Your task to perform on an android device: add a contact Image 0: 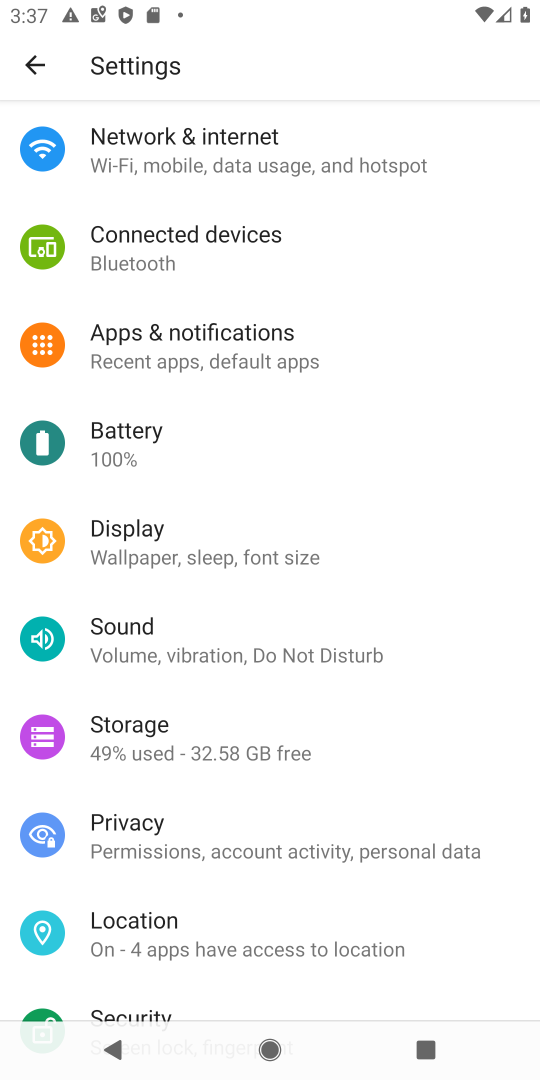
Step 0: press back button
Your task to perform on an android device: add a contact Image 1: 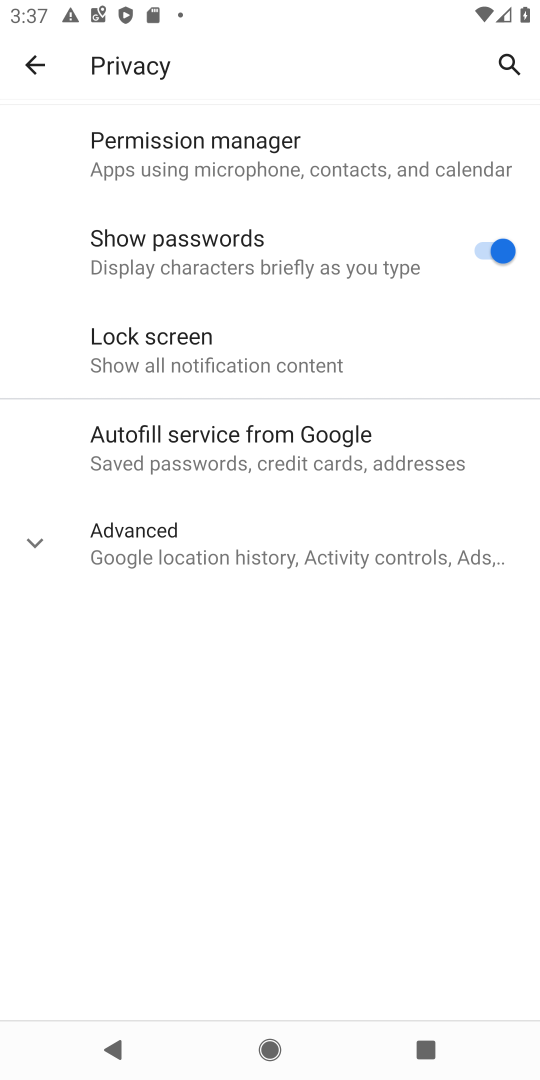
Step 1: press back button
Your task to perform on an android device: add a contact Image 2: 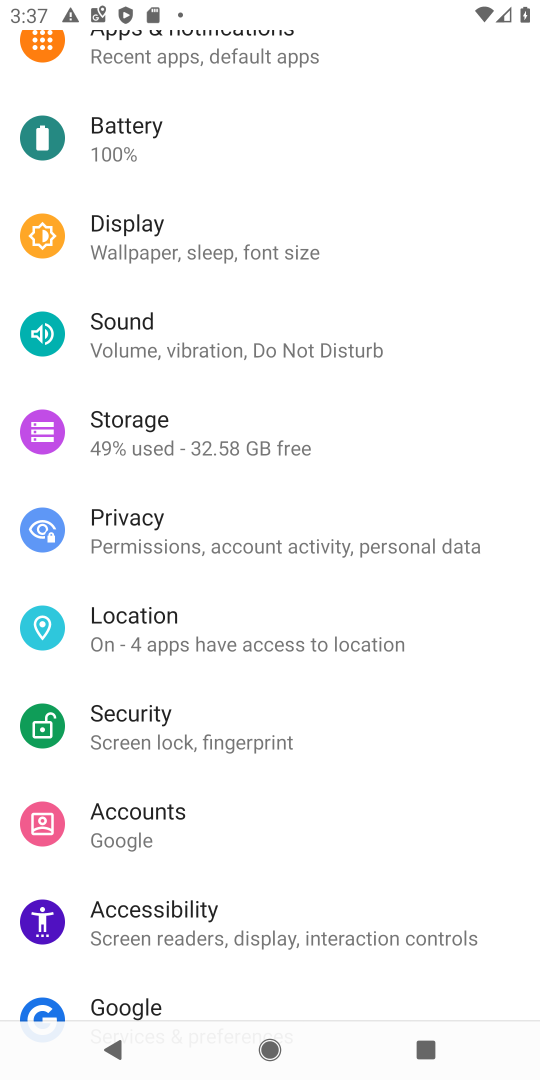
Step 2: press back button
Your task to perform on an android device: add a contact Image 3: 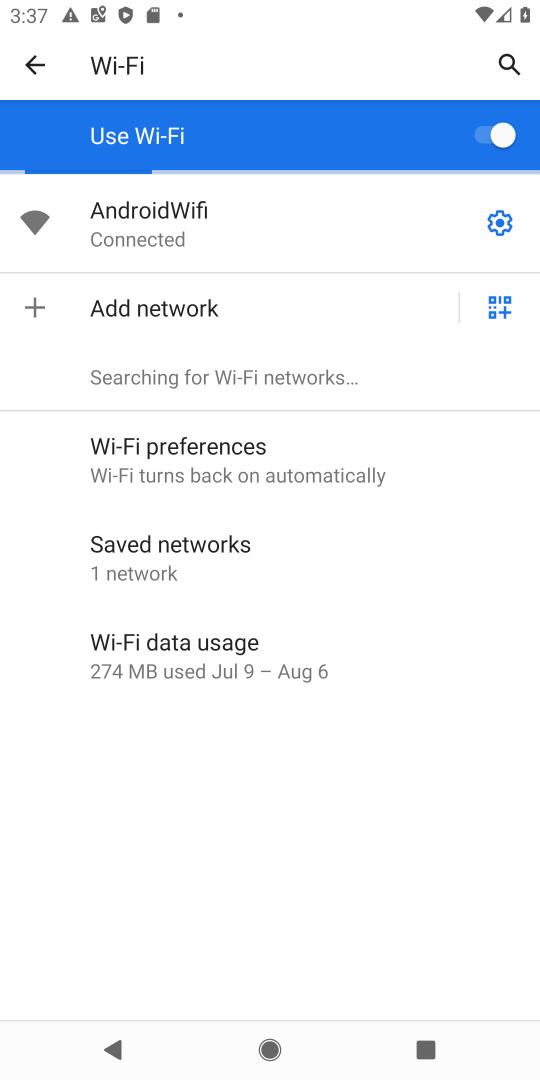
Step 3: press back button
Your task to perform on an android device: add a contact Image 4: 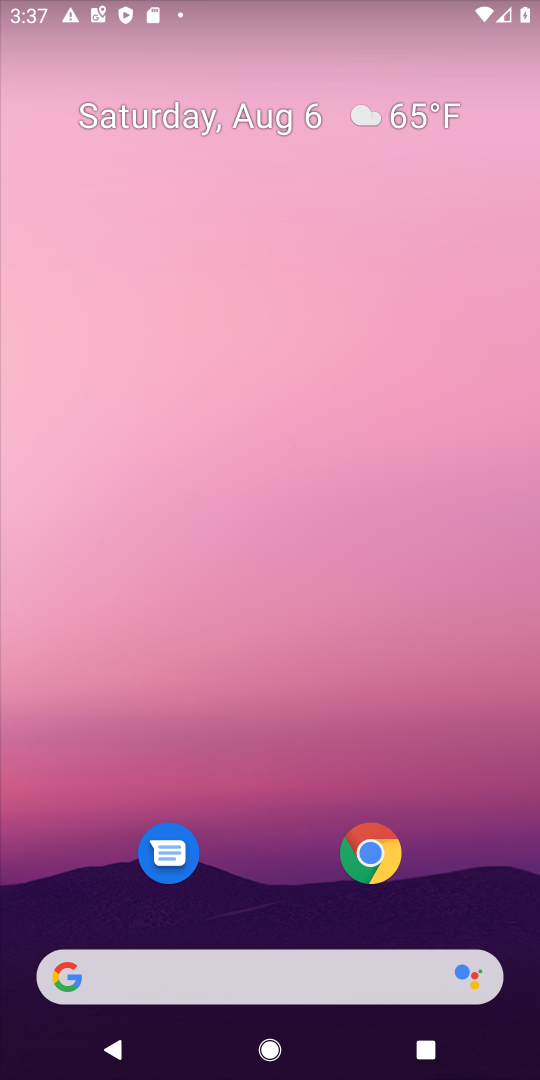
Step 4: drag from (247, 764) to (334, 106)
Your task to perform on an android device: add a contact Image 5: 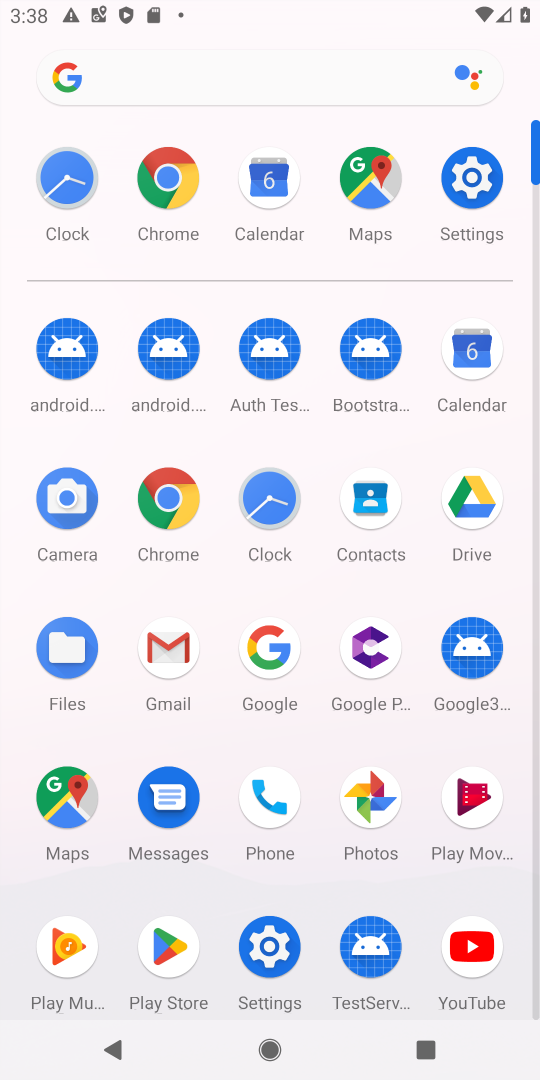
Step 5: click (373, 515)
Your task to perform on an android device: add a contact Image 6: 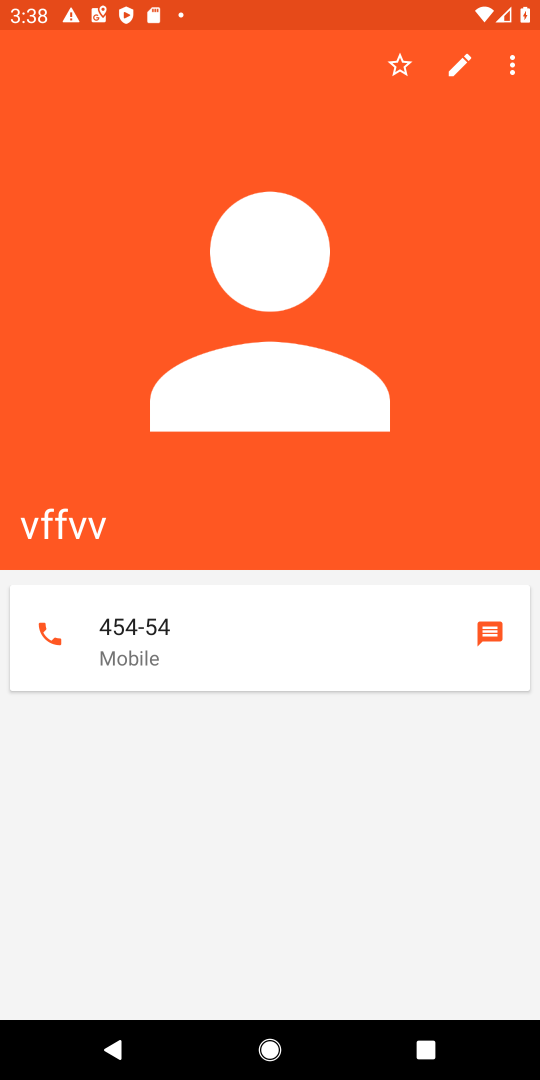
Step 6: press back button
Your task to perform on an android device: add a contact Image 7: 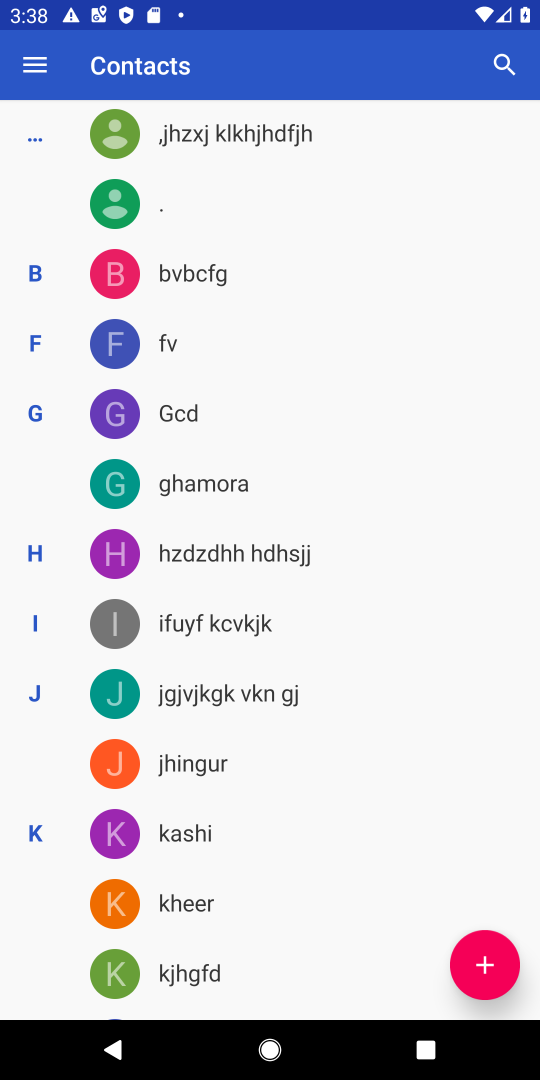
Step 7: click (476, 951)
Your task to perform on an android device: add a contact Image 8: 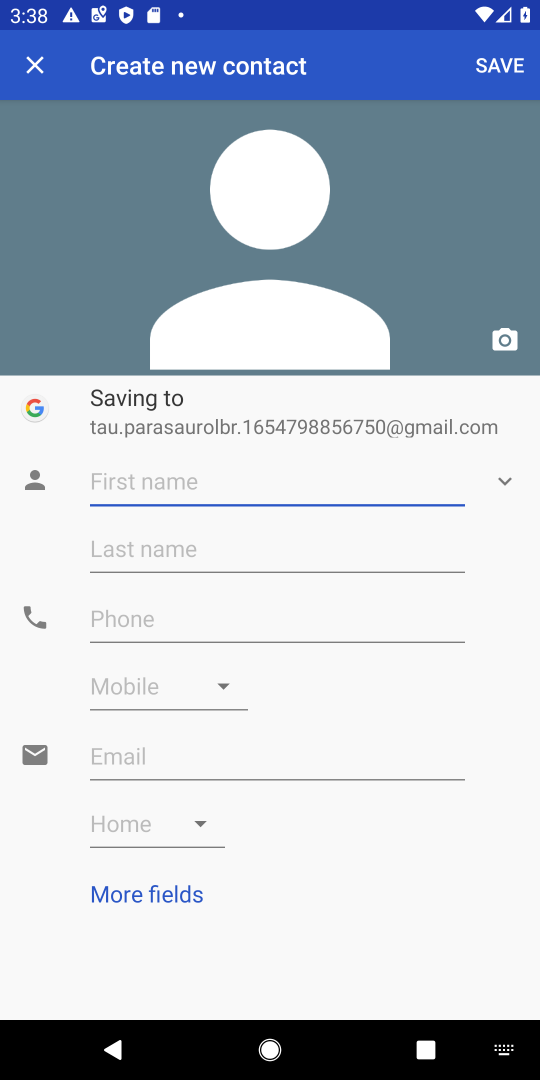
Step 8: click (113, 481)
Your task to perform on an android device: add a contact Image 9: 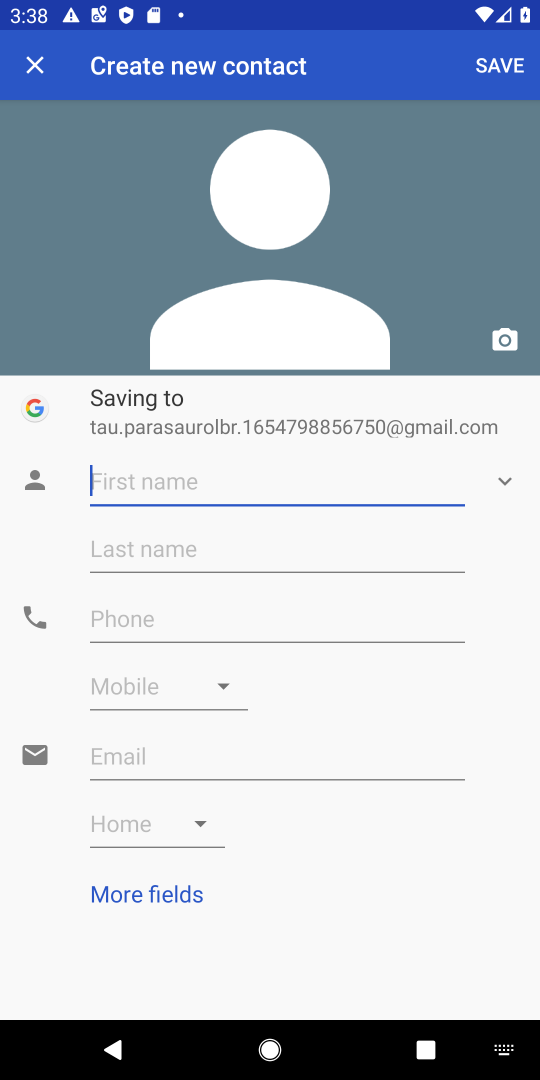
Step 9: type "  fc dc d"
Your task to perform on an android device: add a contact Image 10: 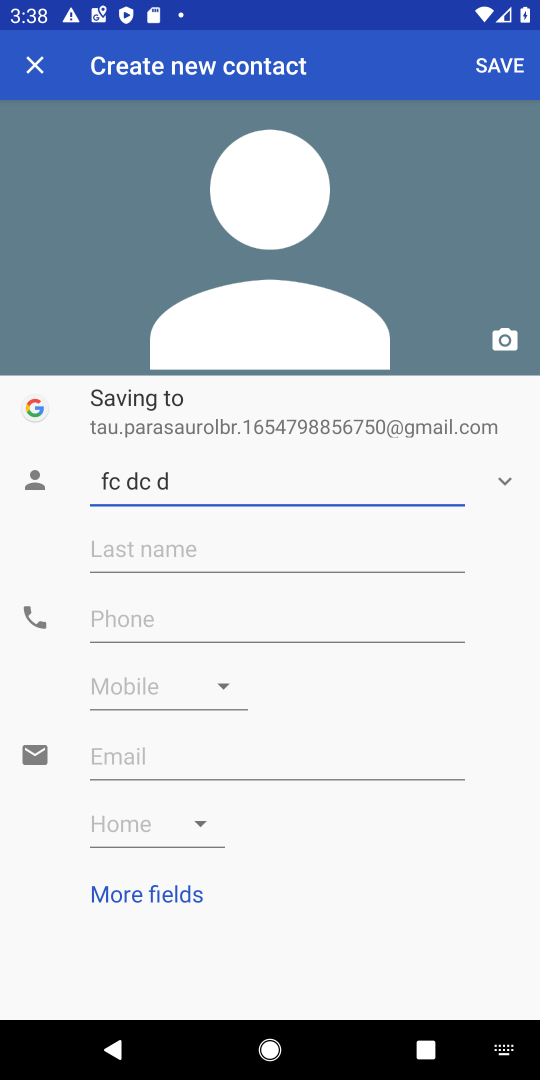
Step 10: click (135, 613)
Your task to perform on an android device: add a contact Image 11: 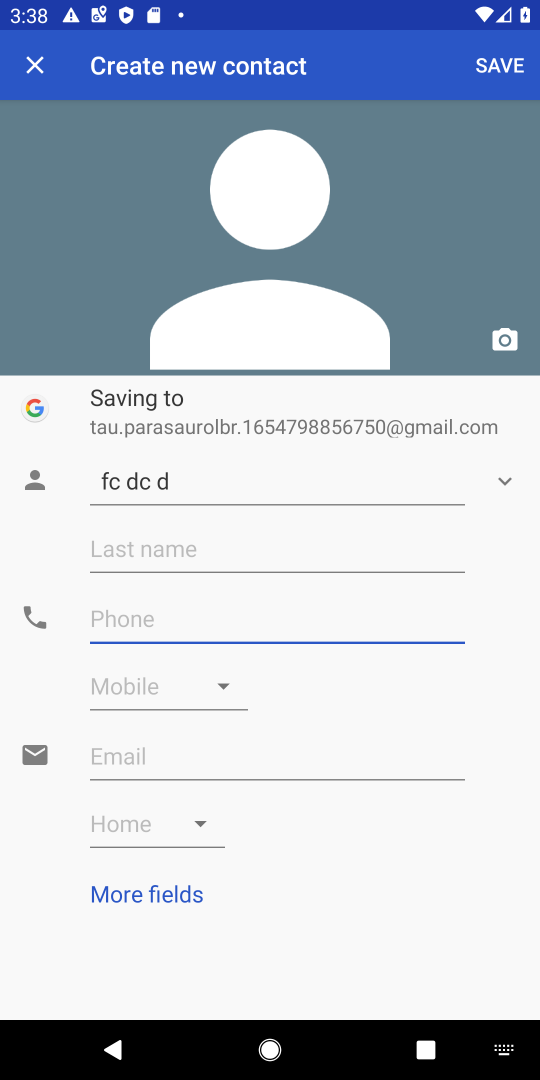
Step 11: type "878789"
Your task to perform on an android device: add a contact Image 12: 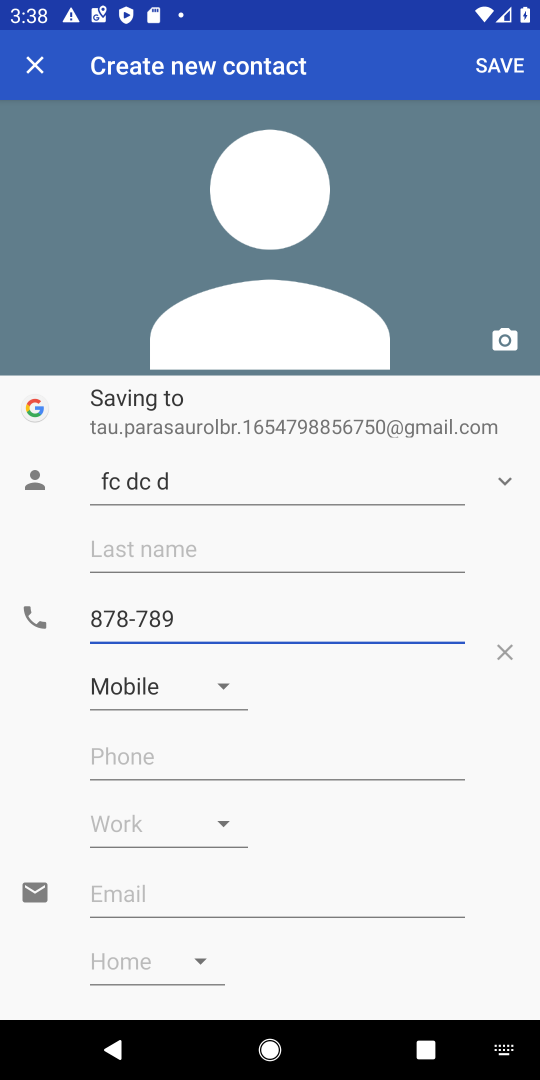
Step 12: click (491, 66)
Your task to perform on an android device: add a contact Image 13: 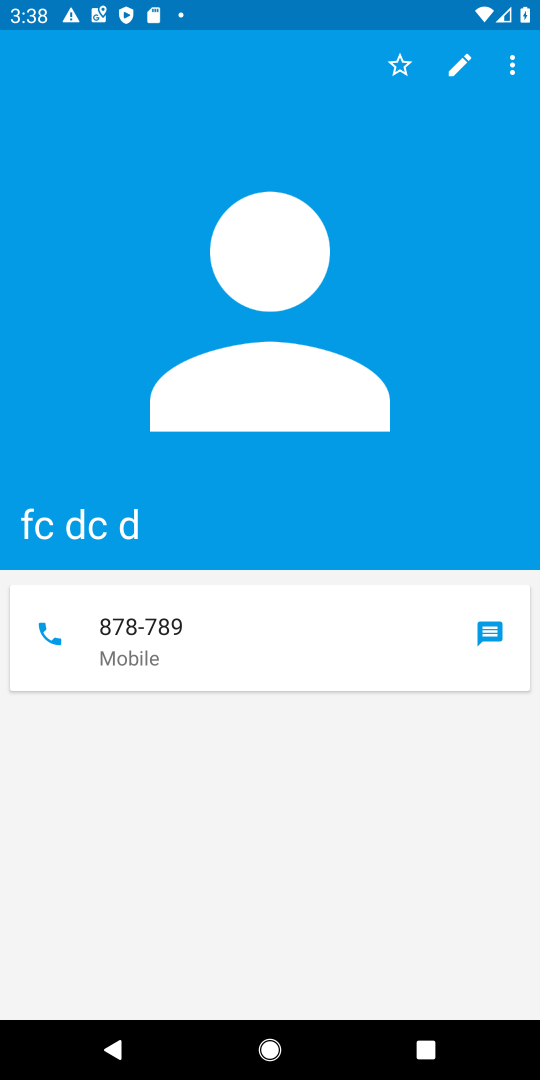
Step 13: task complete